Your task to perform on an android device: Go to wifi settings Image 0: 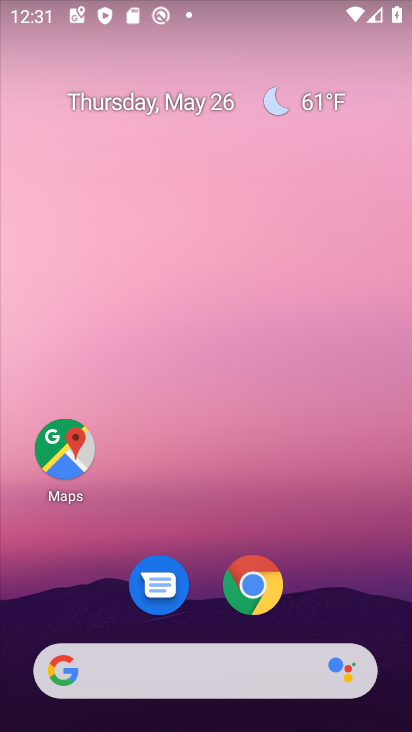
Step 0: drag from (334, 533) to (318, 41)
Your task to perform on an android device: Go to wifi settings Image 1: 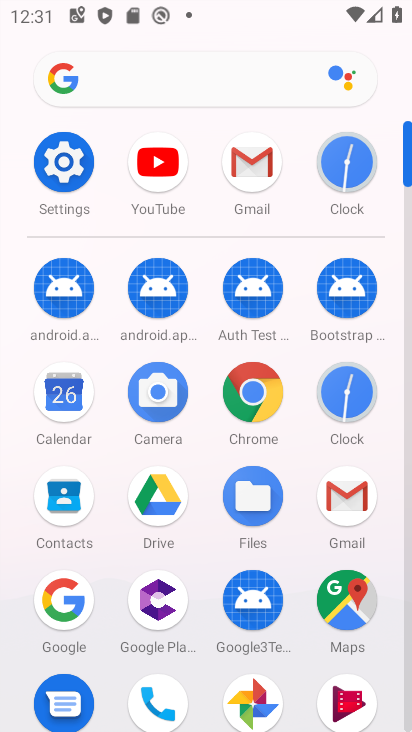
Step 1: click (56, 147)
Your task to perform on an android device: Go to wifi settings Image 2: 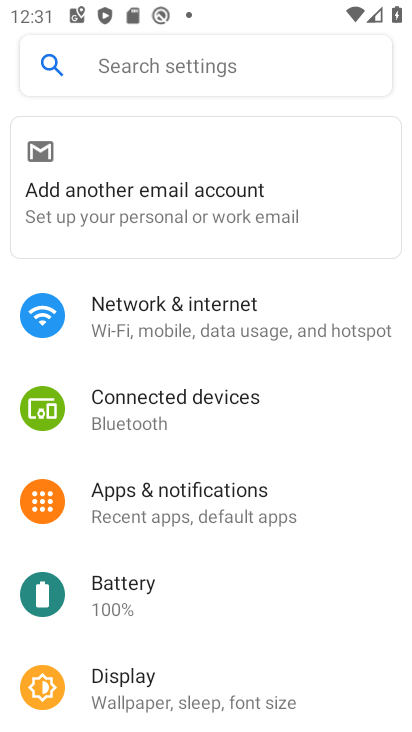
Step 2: click (201, 307)
Your task to perform on an android device: Go to wifi settings Image 3: 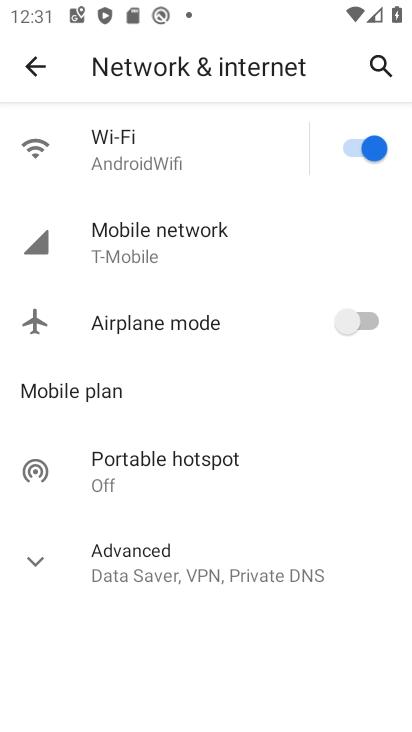
Step 3: click (162, 163)
Your task to perform on an android device: Go to wifi settings Image 4: 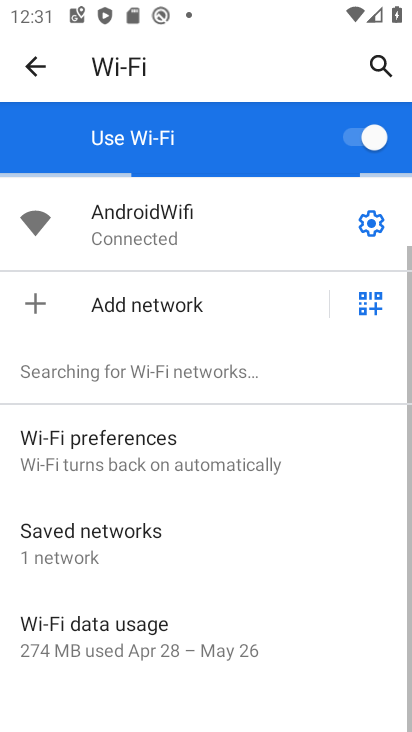
Step 4: task complete